Your task to perform on an android device: uninstall "Contacts" Image 0: 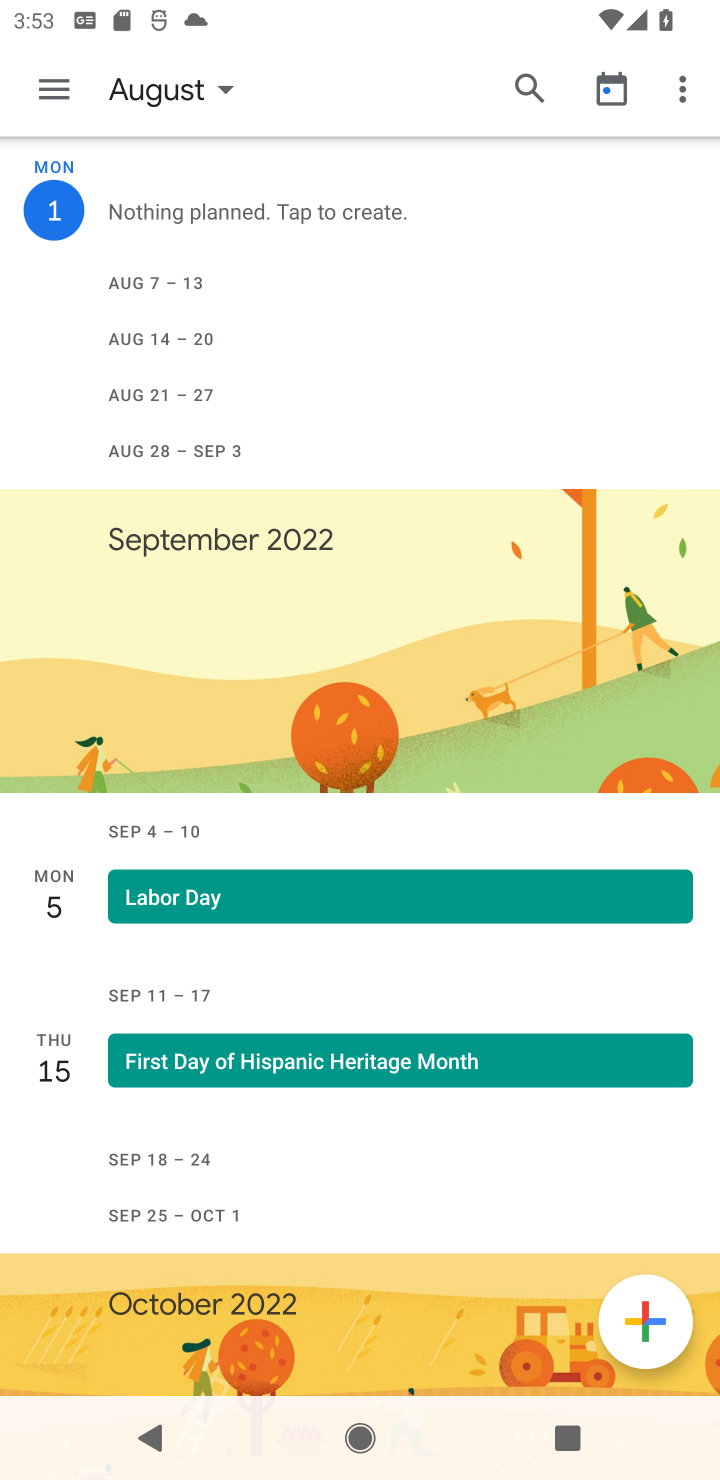
Step 0: press home button
Your task to perform on an android device: uninstall "Contacts" Image 1: 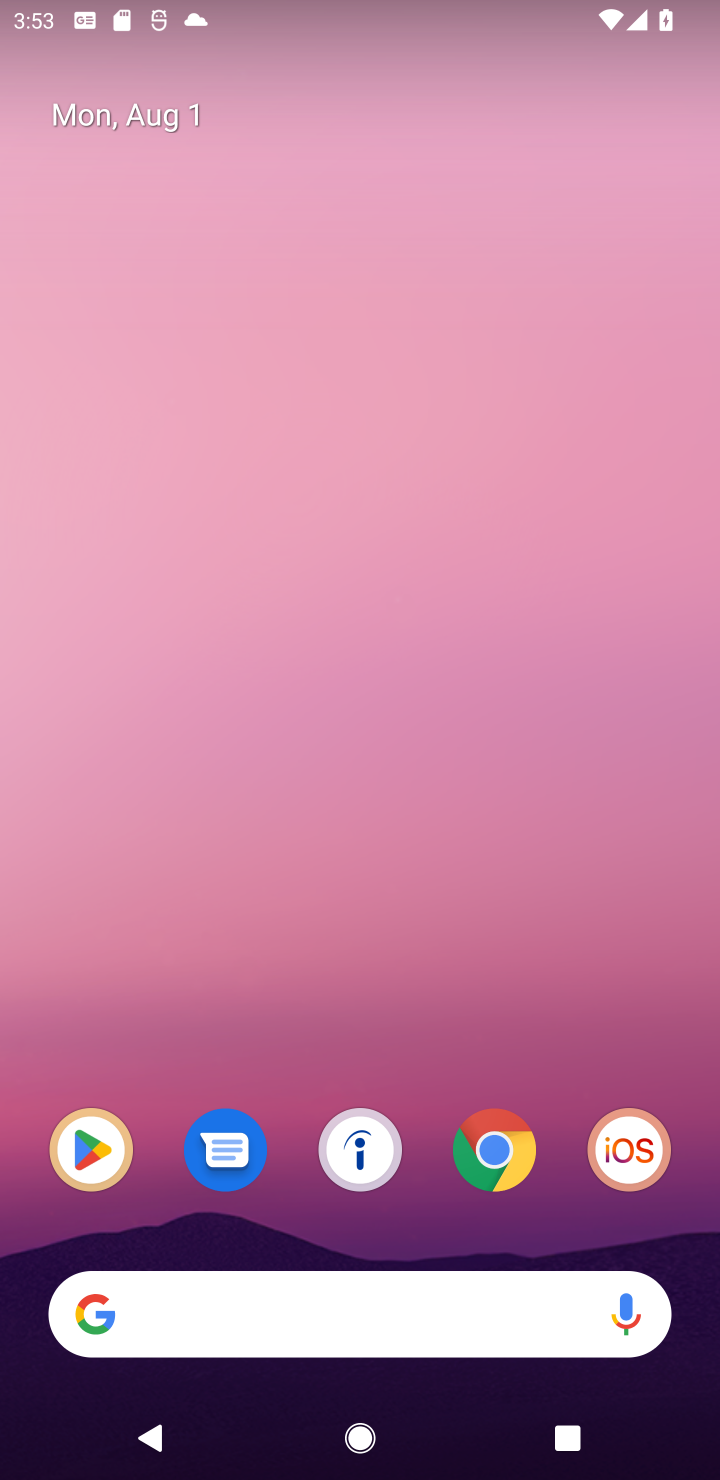
Step 1: drag from (264, 1242) to (207, 71)
Your task to perform on an android device: uninstall "Contacts" Image 2: 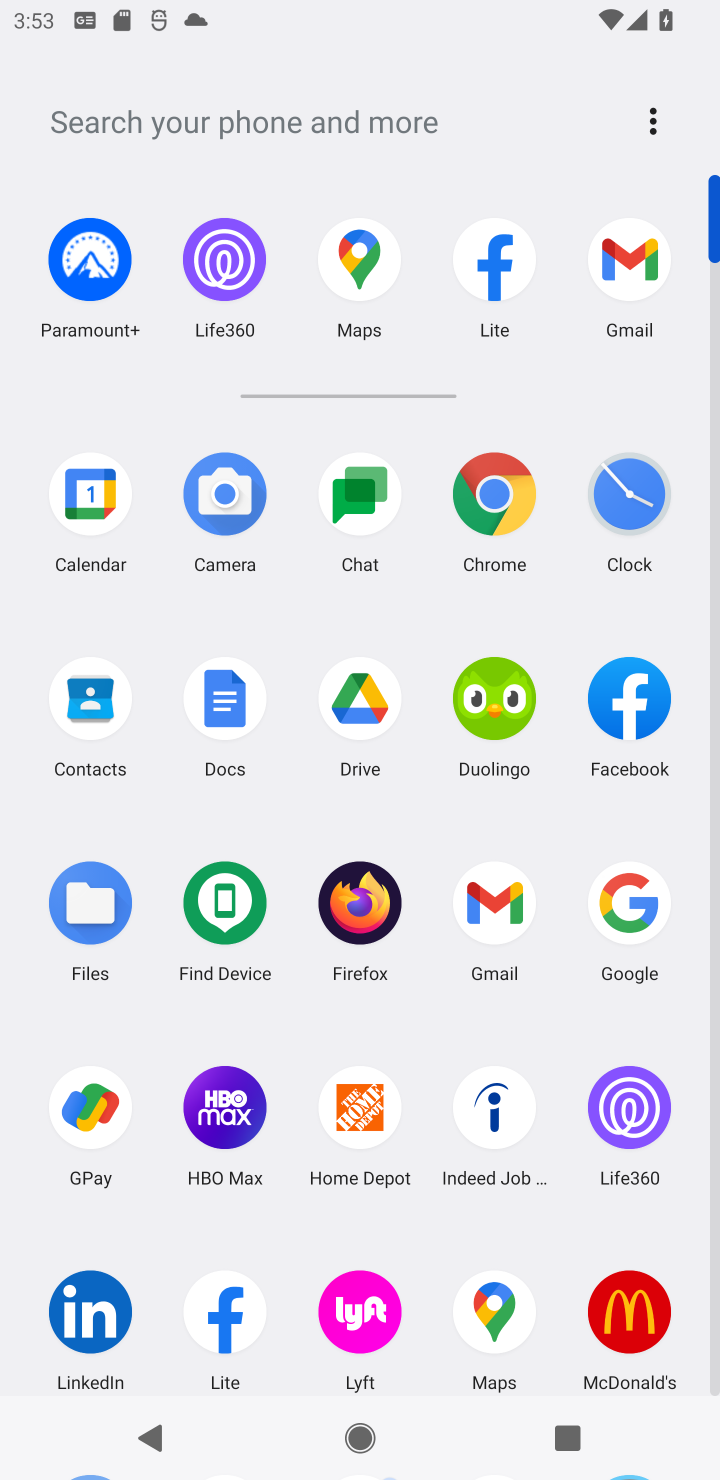
Step 2: click (107, 687)
Your task to perform on an android device: uninstall "Contacts" Image 3: 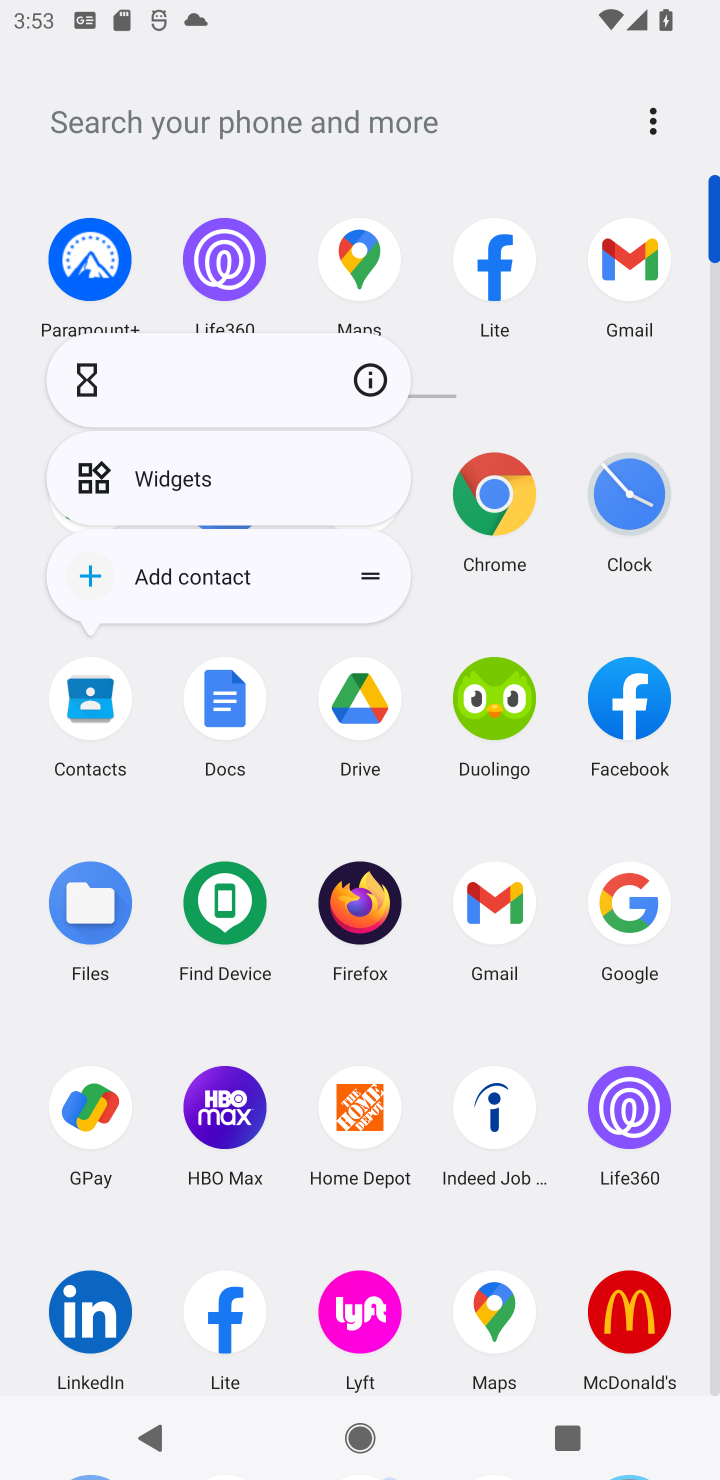
Step 3: click (364, 562)
Your task to perform on an android device: uninstall "Contacts" Image 4: 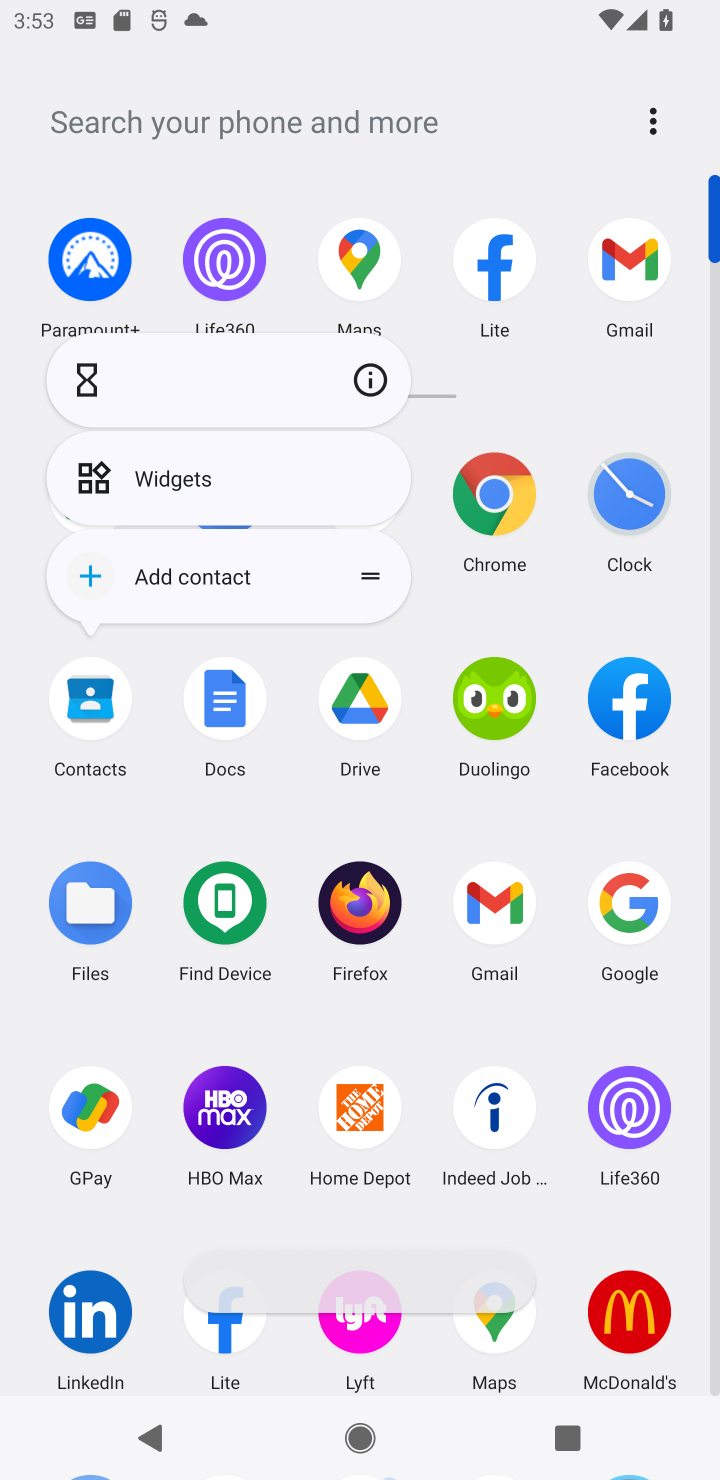
Step 4: task complete